Your task to perform on an android device: Open the calendar and show me this week's events? Image 0: 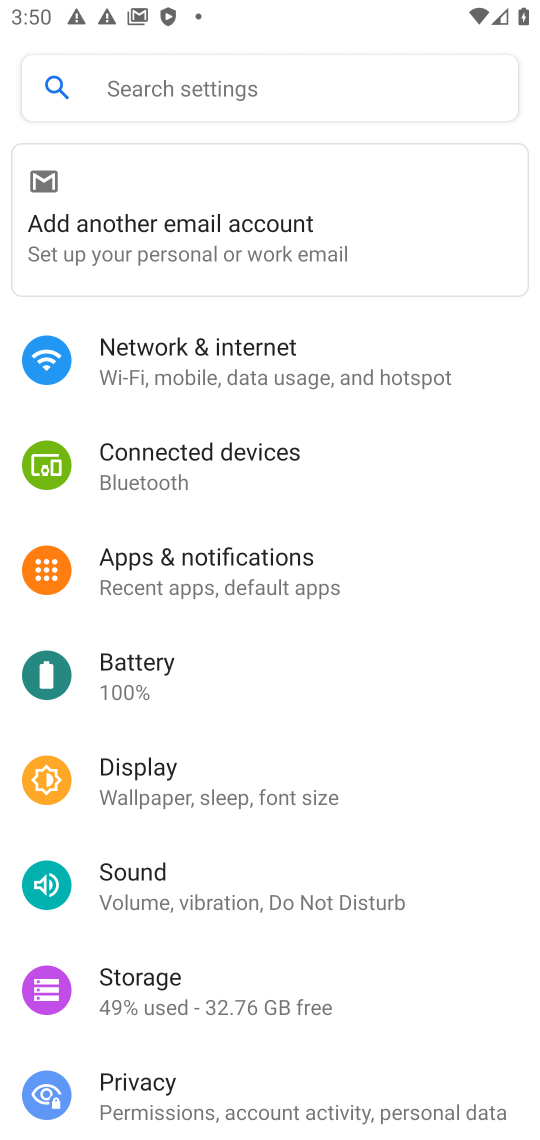
Step 0: press home button
Your task to perform on an android device: Open the calendar and show me this week's events? Image 1: 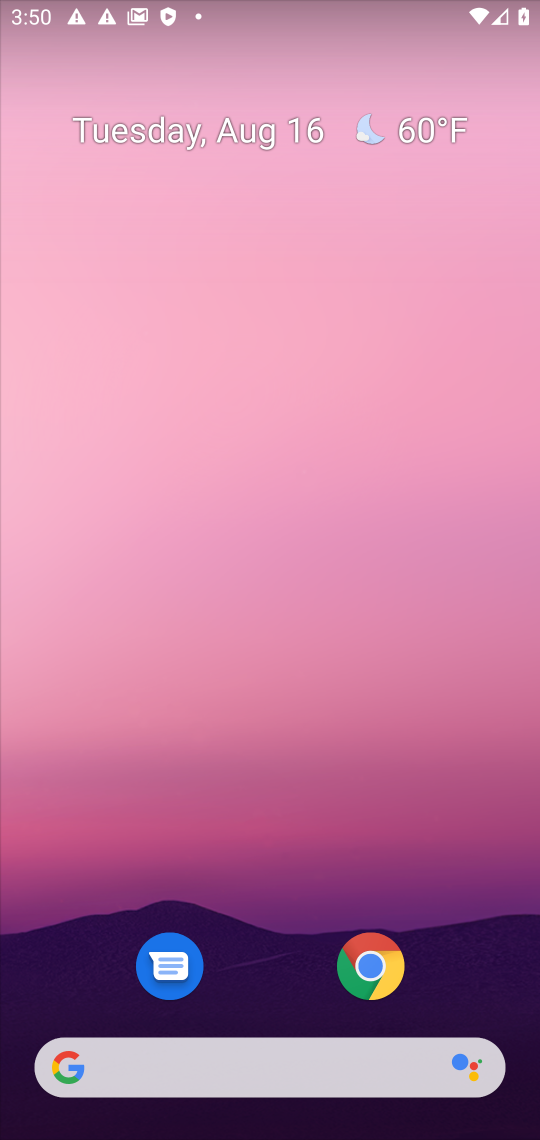
Step 1: drag from (218, 1019) to (245, 282)
Your task to perform on an android device: Open the calendar and show me this week's events? Image 2: 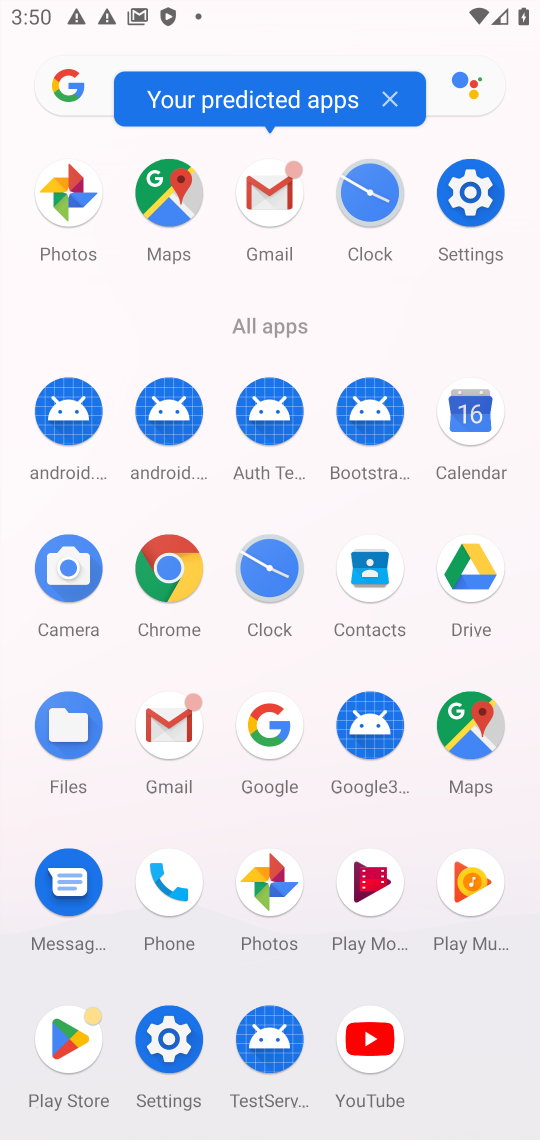
Step 2: click (458, 425)
Your task to perform on an android device: Open the calendar and show me this week's events? Image 3: 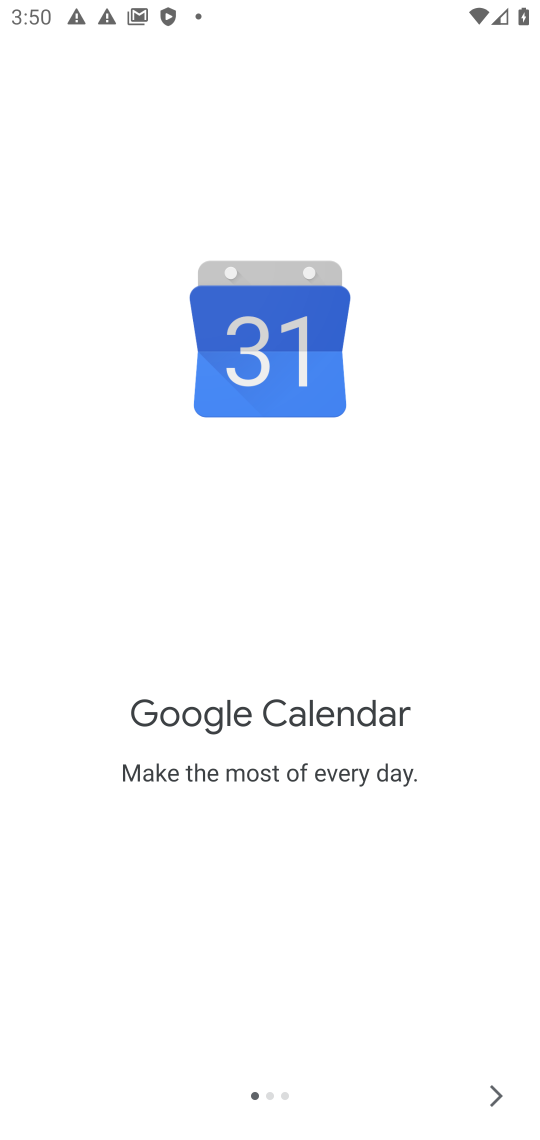
Step 3: click (478, 1096)
Your task to perform on an android device: Open the calendar and show me this week's events? Image 4: 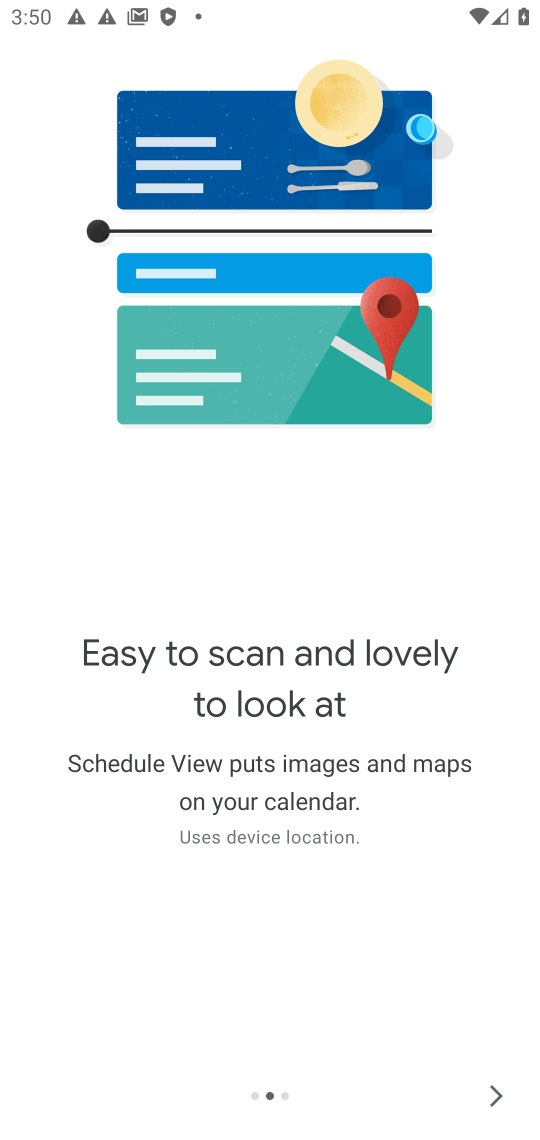
Step 4: click (478, 1096)
Your task to perform on an android device: Open the calendar and show me this week's events? Image 5: 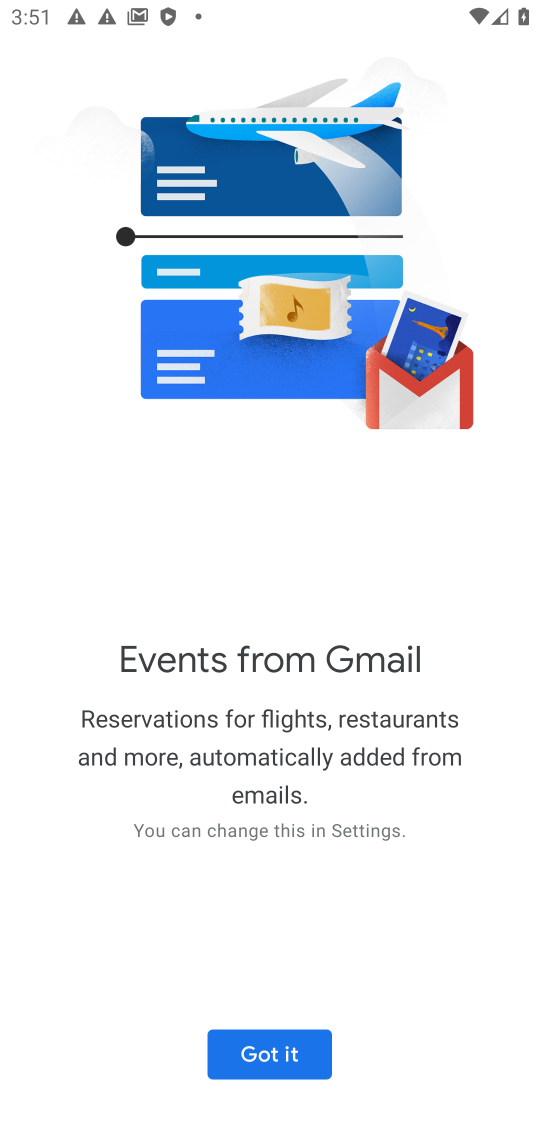
Step 5: click (253, 1062)
Your task to perform on an android device: Open the calendar and show me this week's events? Image 6: 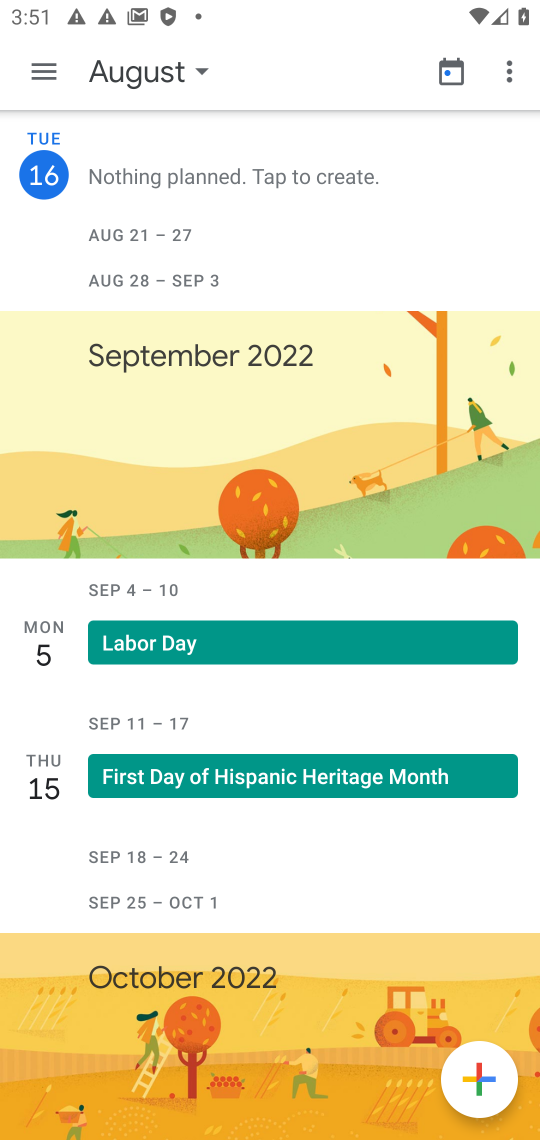
Step 6: task complete